Your task to perform on an android device: open app "Viber Messenger" (install if not already installed) Image 0: 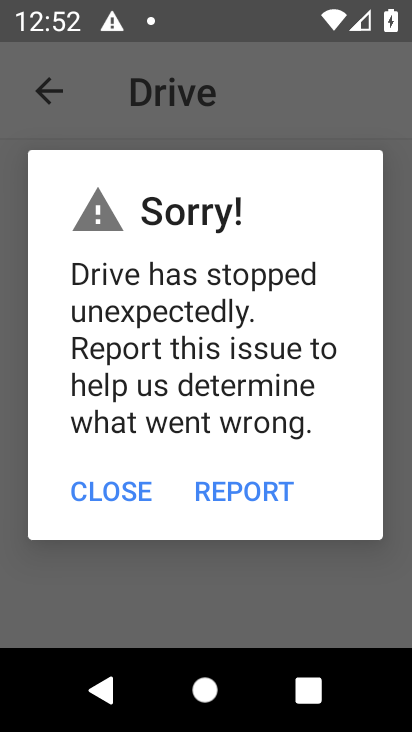
Step 0: press home button
Your task to perform on an android device: open app "Viber Messenger" (install if not already installed) Image 1: 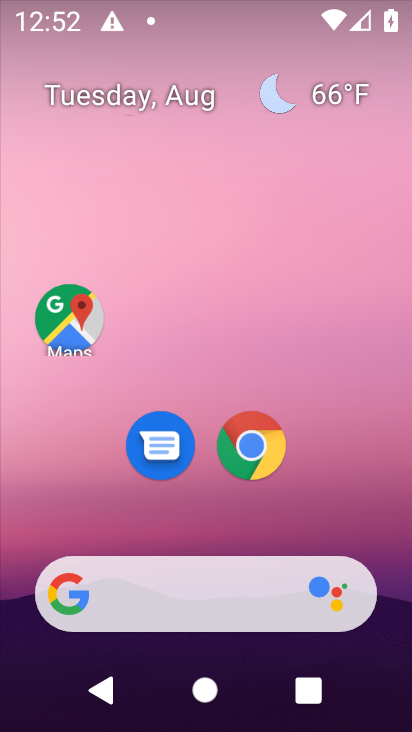
Step 1: drag from (345, 474) to (288, 103)
Your task to perform on an android device: open app "Viber Messenger" (install if not already installed) Image 2: 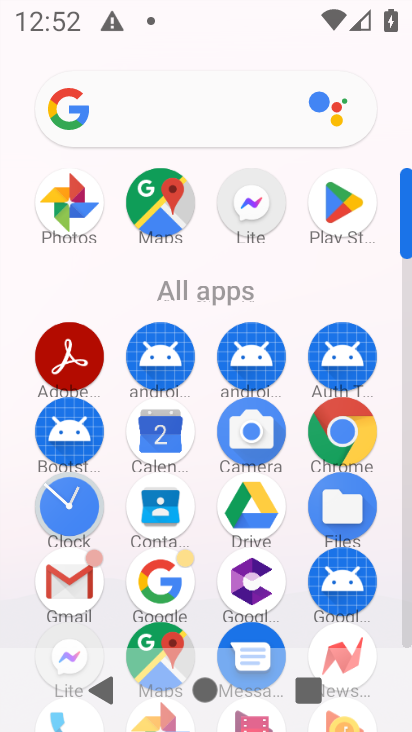
Step 2: click (338, 184)
Your task to perform on an android device: open app "Viber Messenger" (install if not already installed) Image 3: 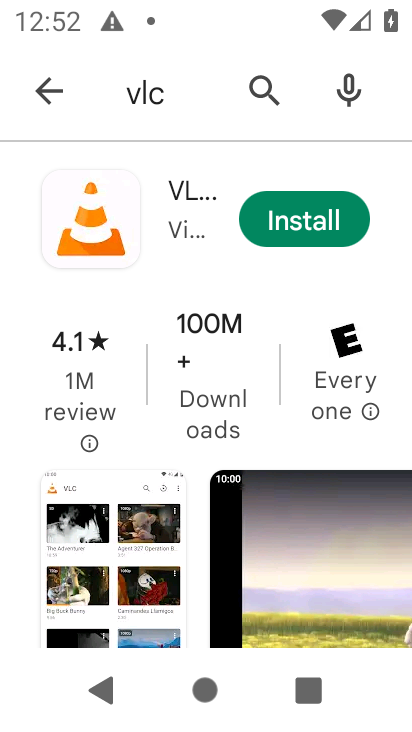
Step 3: click (271, 85)
Your task to perform on an android device: open app "Viber Messenger" (install if not already installed) Image 4: 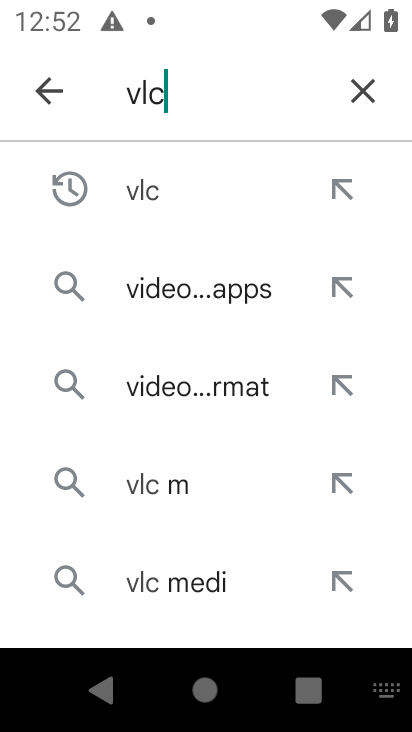
Step 4: click (357, 92)
Your task to perform on an android device: open app "Viber Messenger" (install if not already installed) Image 5: 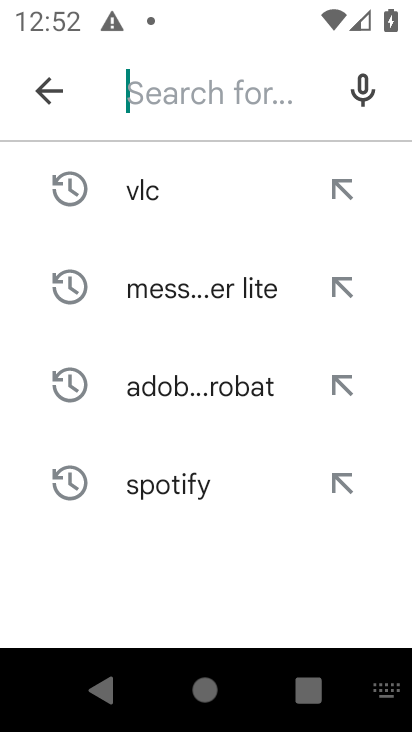
Step 5: type "viber messenger"
Your task to perform on an android device: open app "Viber Messenger" (install if not already installed) Image 6: 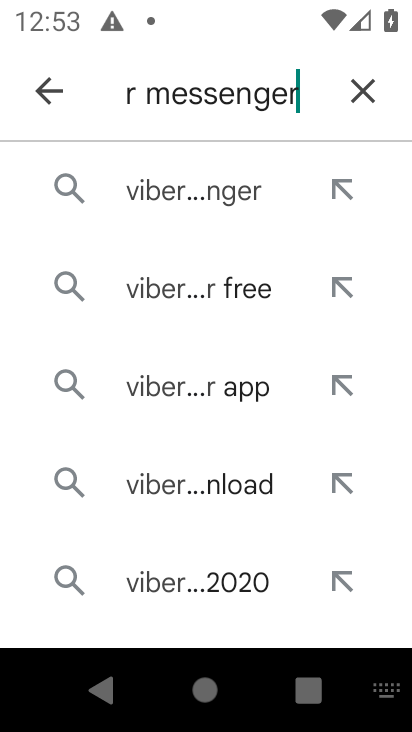
Step 6: click (208, 198)
Your task to perform on an android device: open app "Viber Messenger" (install if not already installed) Image 7: 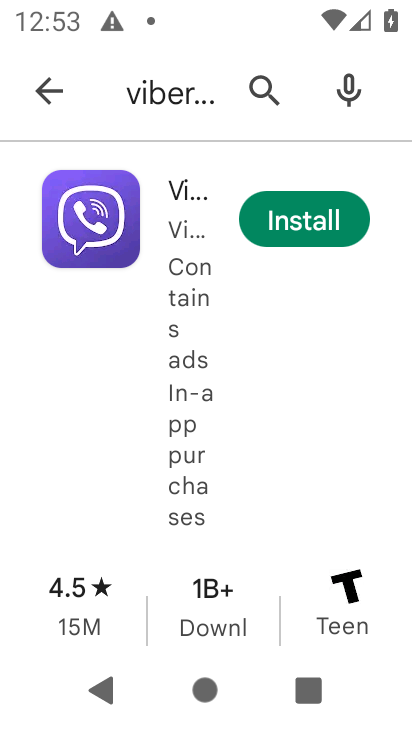
Step 7: click (274, 216)
Your task to perform on an android device: open app "Viber Messenger" (install if not already installed) Image 8: 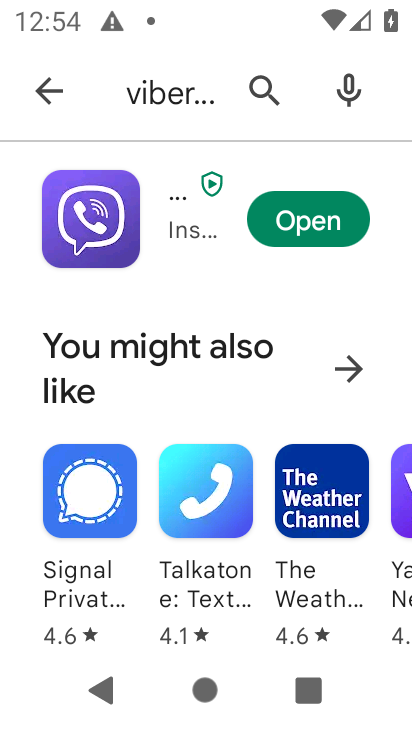
Step 8: click (319, 235)
Your task to perform on an android device: open app "Viber Messenger" (install if not already installed) Image 9: 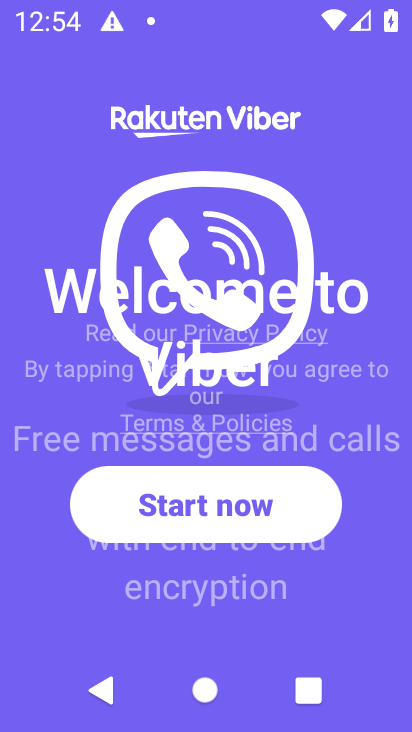
Step 9: task complete